Your task to perform on an android device: Open Chrome and go to the settings page Image 0: 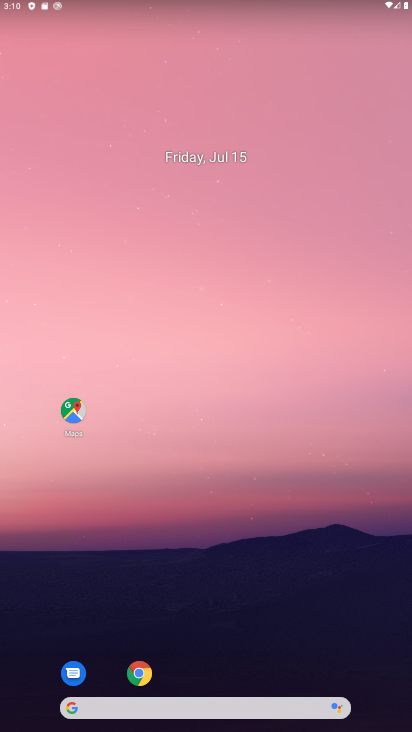
Step 0: click (148, 677)
Your task to perform on an android device: Open Chrome and go to the settings page Image 1: 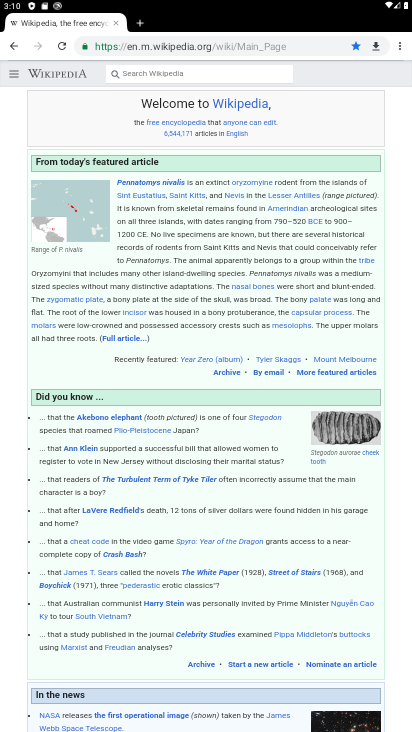
Step 1: task complete